Your task to perform on an android device: Open Youtube and go to "Your channel" Image 0: 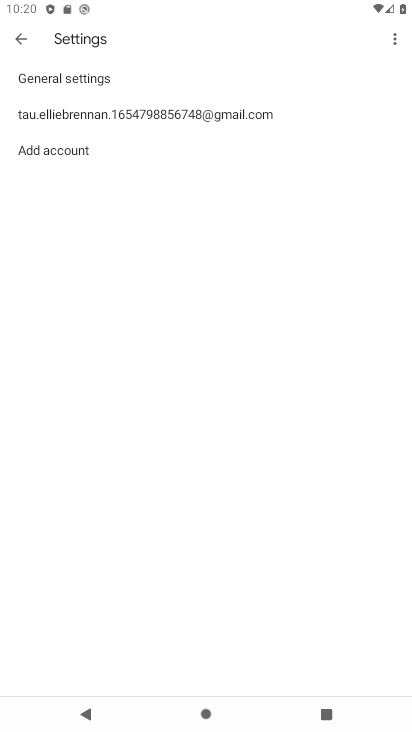
Step 0: press home button
Your task to perform on an android device: Open Youtube and go to "Your channel" Image 1: 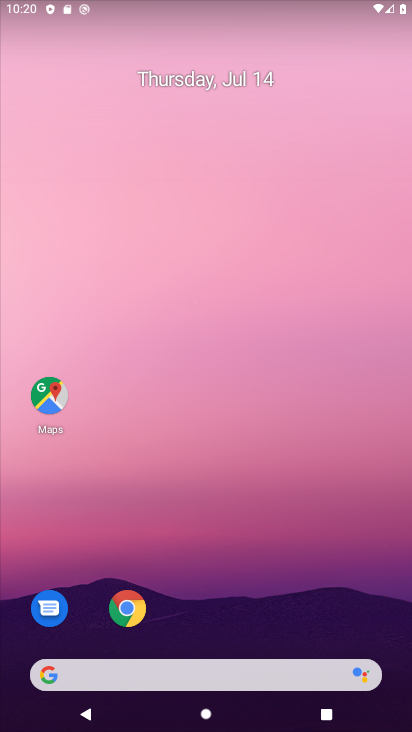
Step 1: drag from (244, 607) to (184, 3)
Your task to perform on an android device: Open Youtube and go to "Your channel" Image 2: 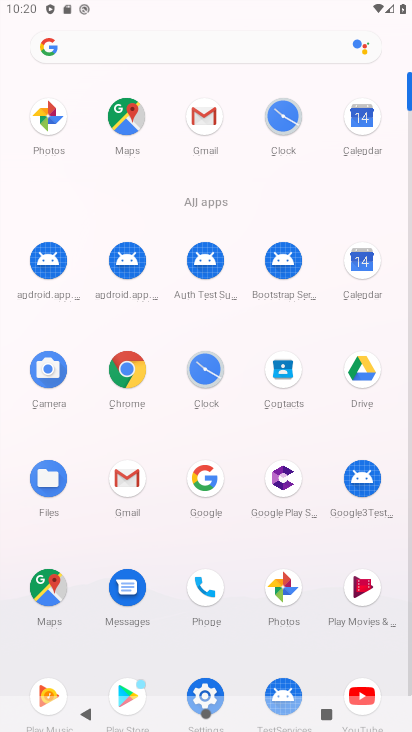
Step 2: click (362, 689)
Your task to perform on an android device: Open Youtube and go to "Your channel" Image 3: 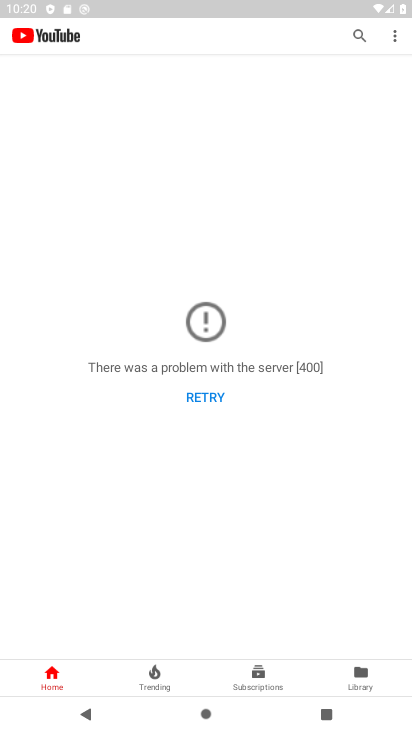
Step 3: click (364, 669)
Your task to perform on an android device: Open Youtube and go to "Your channel" Image 4: 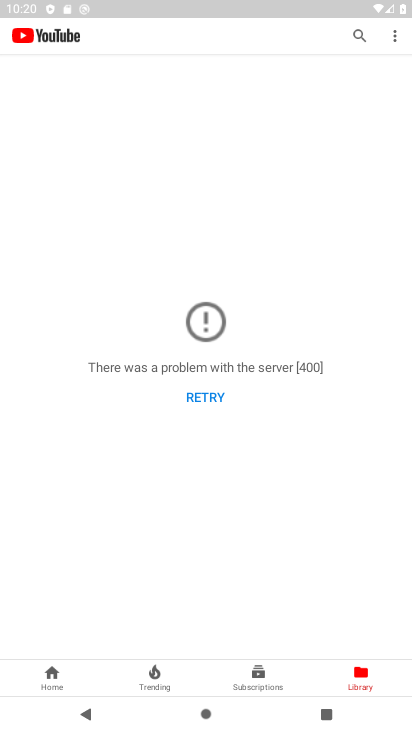
Step 4: task complete